Your task to perform on an android device: change text size in settings app Image 0: 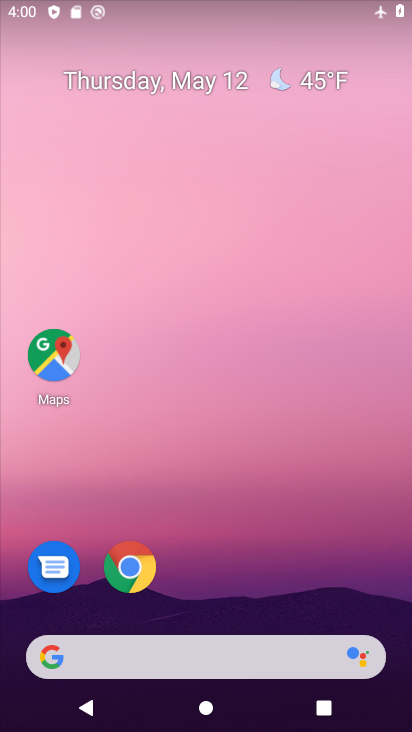
Step 0: drag from (212, 585) to (166, 141)
Your task to perform on an android device: change text size in settings app Image 1: 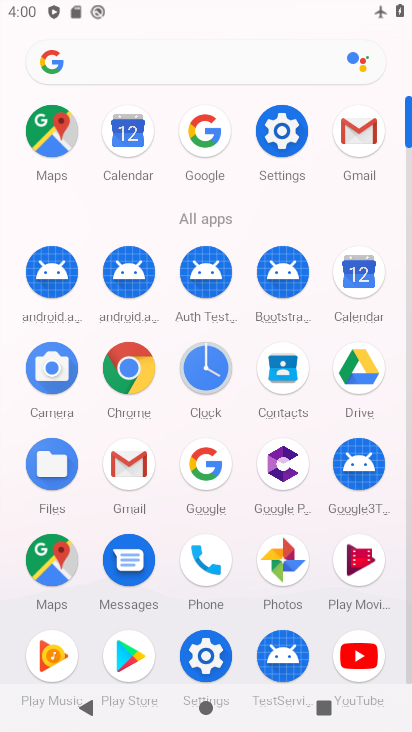
Step 1: click (266, 166)
Your task to perform on an android device: change text size in settings app Image 2: 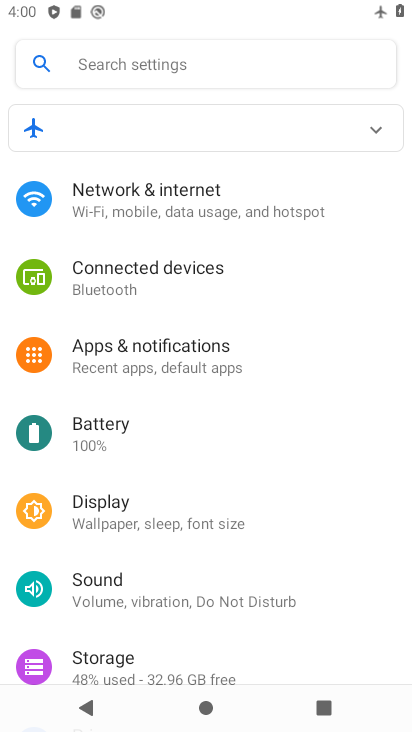
Step 2: drag from (202, 518) to (197, 331)
Your task to perform on an android device: change text size in settings app Image 3: 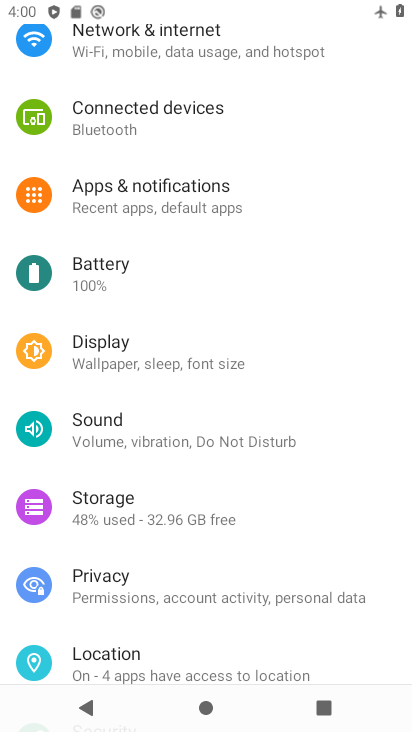
Step 3: click (150, 386)
Your task to perform on an android device: change text size in settings app Image 4: 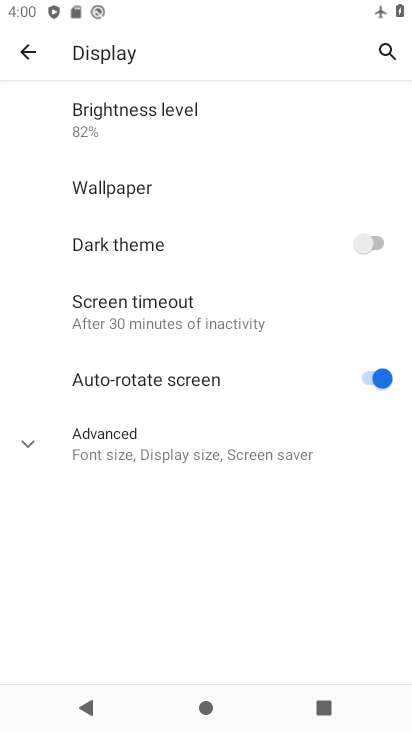
Step 4: click (130, 440)
Your task to perform on an android device: change text size in settings app Image 5: 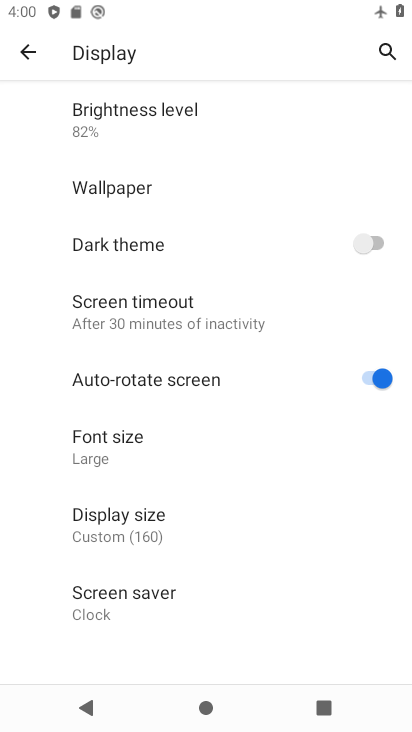
Step 5: click (116, 455)
Your task to perform on an android device: change text size in settings app Image 6: 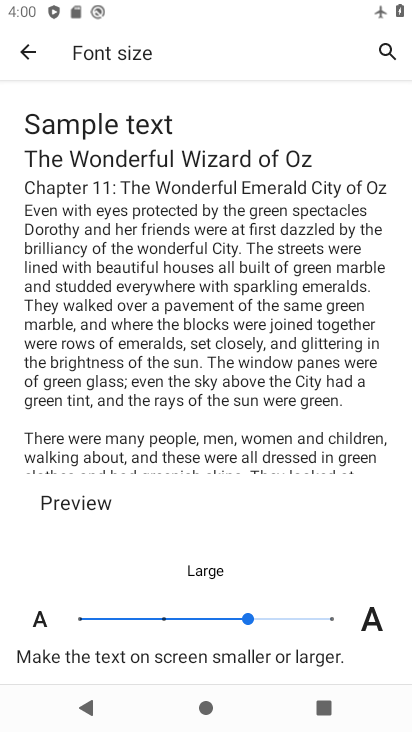
Step 6: click (90, 611)
Your task to perform on an android device: change text size in settings app Image 7: 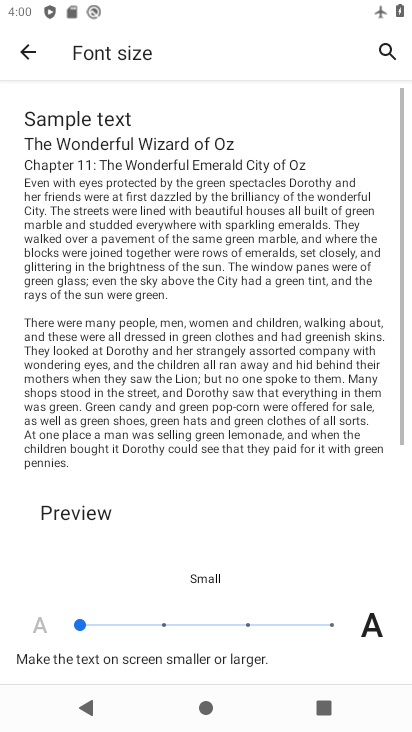
Step 7: task complete